Your task to perform on an android device: choose inbox layout in the gmail app Image 0: 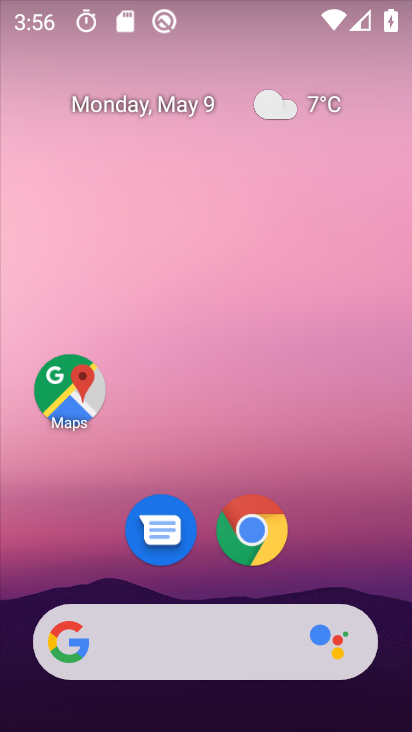
Step 0: drag from (182, 521) to (253, 138)
Your task to perform on an android device: choose inbox layout in the gmail app Image 1: 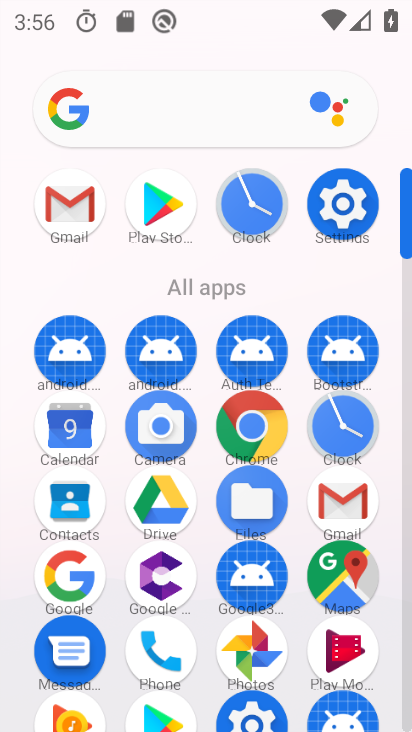
Step 1: click (64, 227)
Your task to perform on an android device: choose inbox layout in the gmail app Image 2: 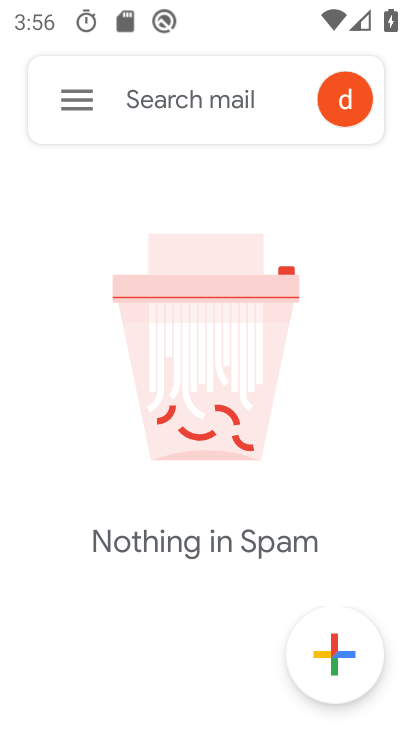
Step 2: click (80, 105)
Your task to perform on an android device: choose inbox layout in the gmail app Image 3: 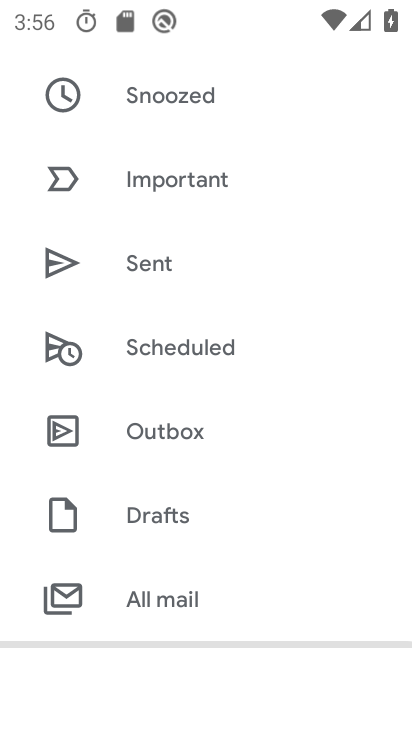
Step 3: drag from (195, 620) to (223, 165)
Your task to perform on an android device: choose inbox layout in the gmail app Image 4: 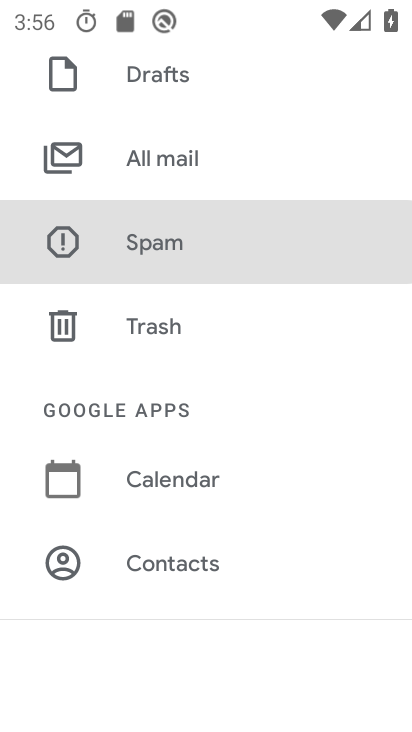
Step 4: drag from (138, 701) to (168, 672)
Your task to perform on an android device: choose inbox layout in the gmail app Image 5: 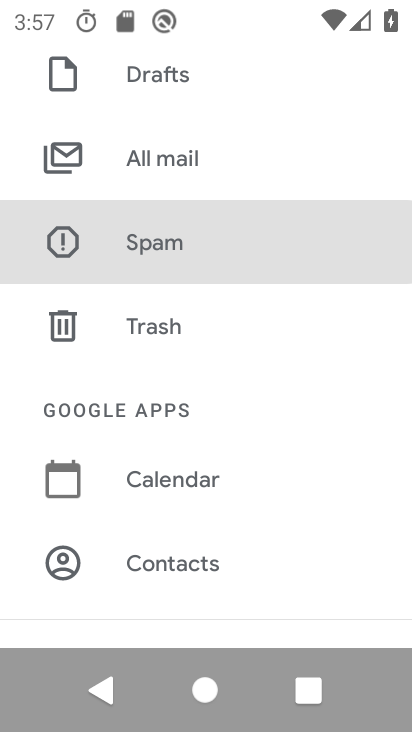
Step 5: drag from (196, 188) to (142, 695)
Your task to perform on an android device: choose inbox layout in the gmail app Image 6: 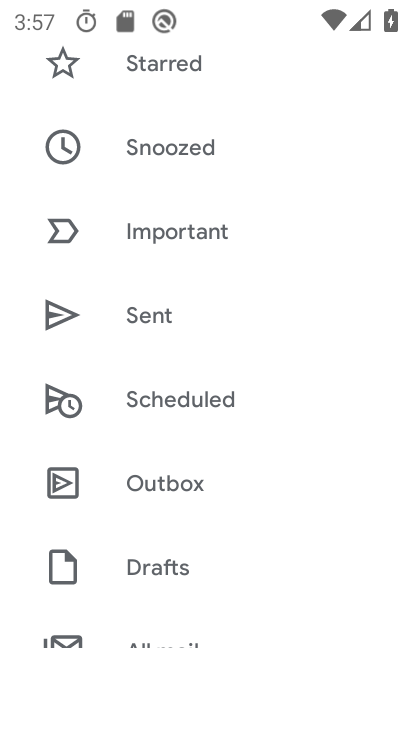
Step 6: drag from (153, 632) to (292, 90)
Your task to perform on an android device: choose inbox layout in the gmail app Image 7: 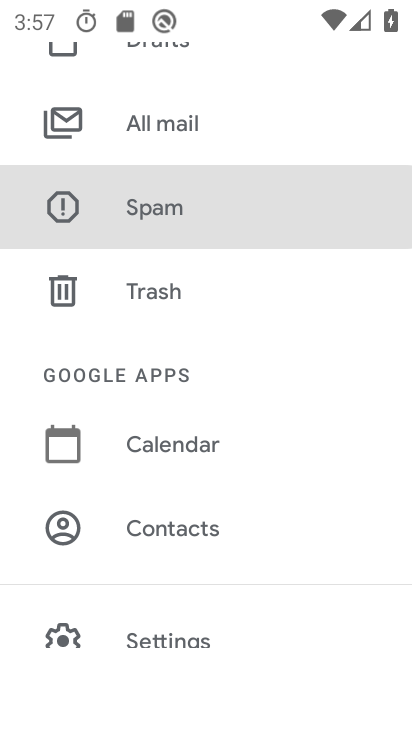
Step 7: click (153, 652)
Your task to perform on an android device: choose inbox layout in the gmail app Image 8: 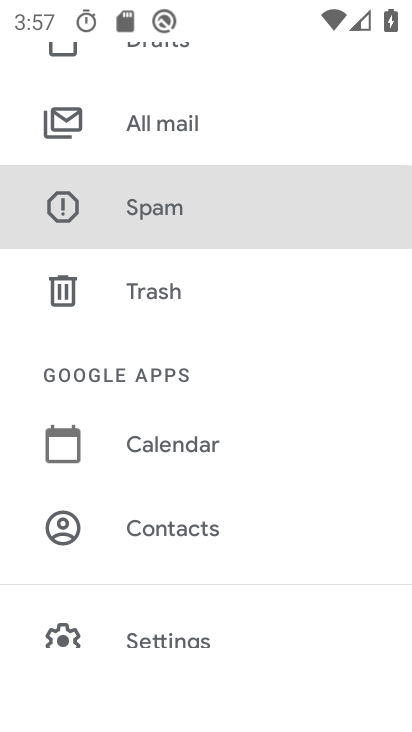
Step 8: click (157, 637)
Your task to perform on an android device: choose inbox layout in the gmail app Image 9: 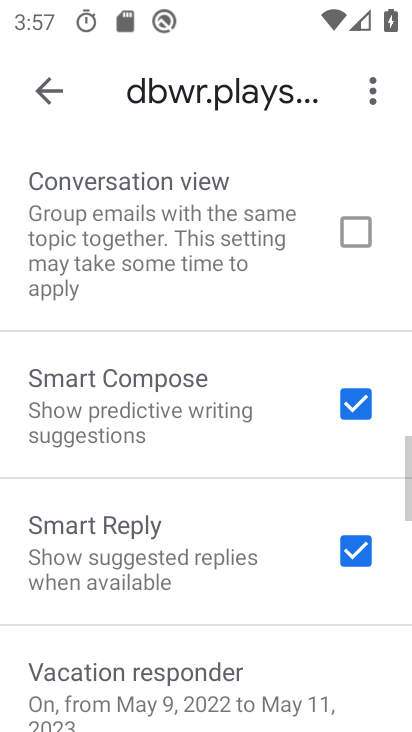
Step 9: drag from (199, 198) to (111, 721)
Your task to perform on an android device: choose inbox layout in the gmail app Image 10: 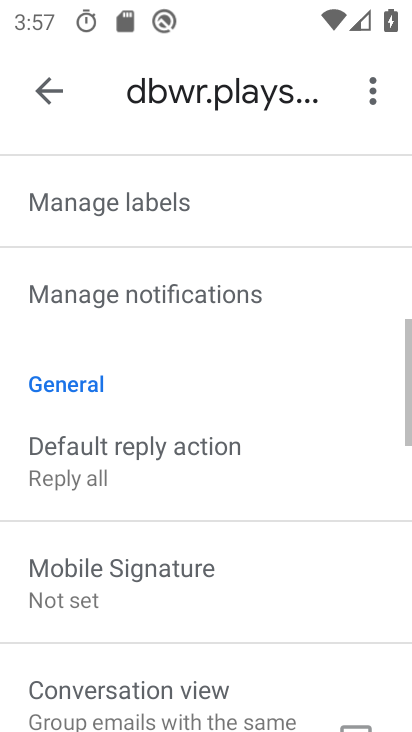
Step 10: drag from (161, 237) to (123, 705)
Your task to perform on an android device: choose inbox layout in the gmail app Image 11: 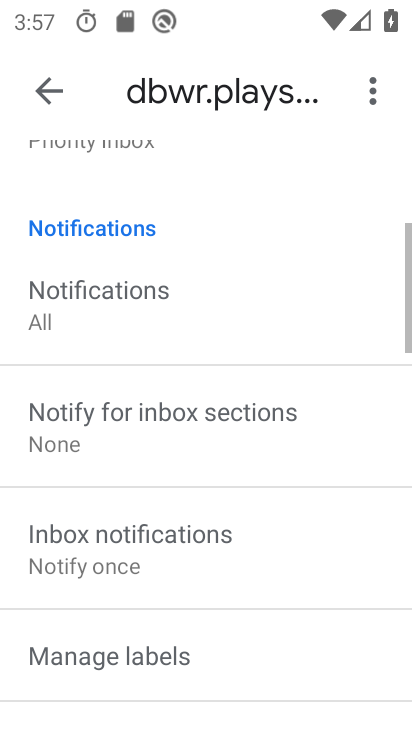
Step 11: drag from (161, 205) to (91, 729)
Your task to perform on an android device: choose inbox layout in the gmail app Image 12: 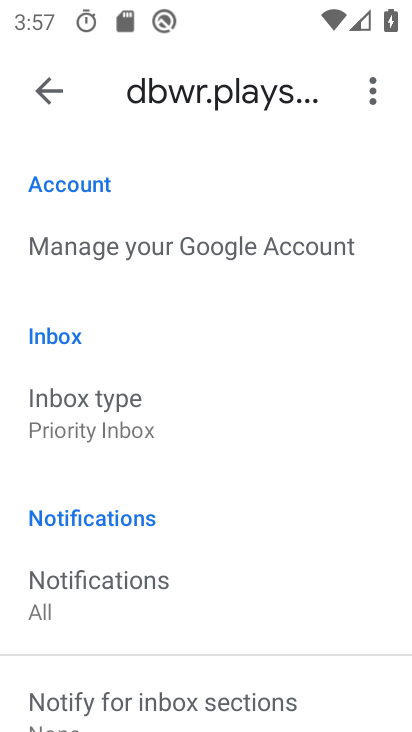
Step 12: click (126, 408)
Your task to perform on an android device: choose inbox layout in the gmail app Image 13: 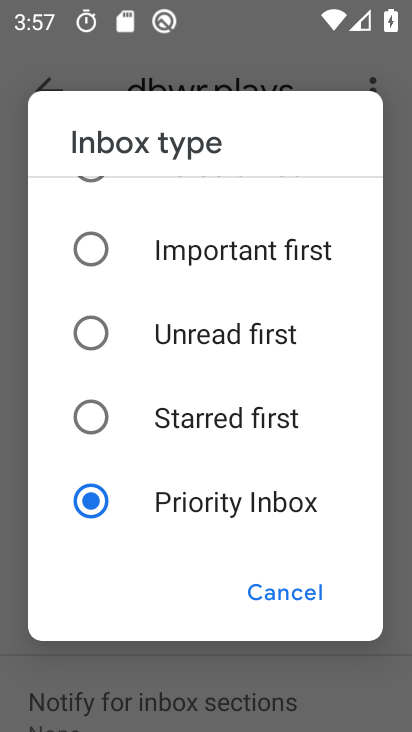
Step 13: drag from (189, 249) to (194, 616)
Your task to perform on an android device: choose inbox layout in the gmail app Image 14: 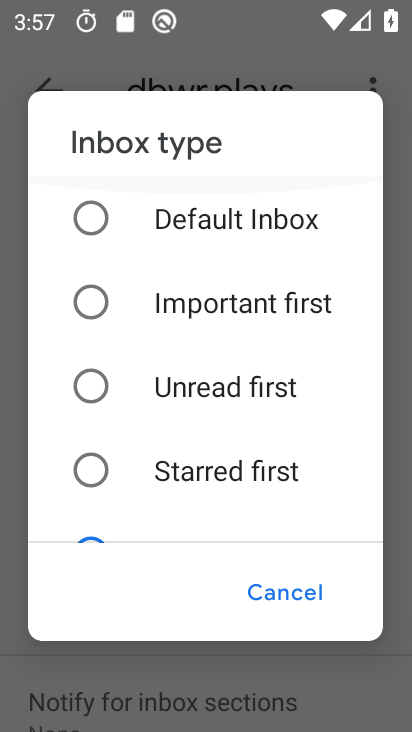
Step 14: click (94, 212)
Your task to perform on an android device: choose inbox layout in the gmail app Image 15: 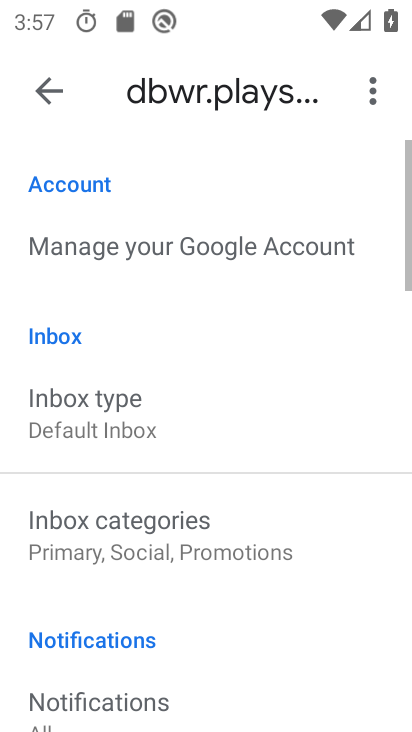
Step 15: task complete